Your task to perform on an android device: Open Yahoo.com Image 0: 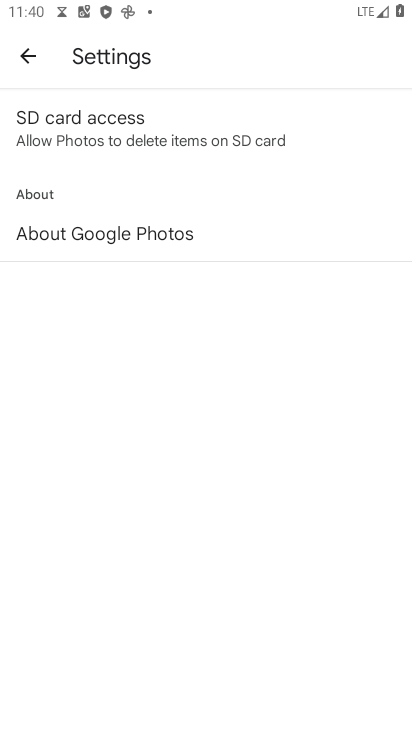
Step 0: press back button
Your task to perform on an android device: Open Yahoo.com Image 1: 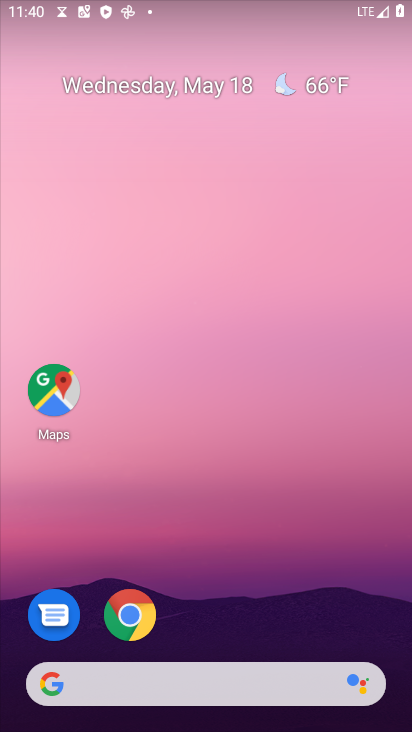
Step 1: drag from (250, 572) to (231, 29)
Your task to perform on an android device: Open Yahoo.com Image 2: 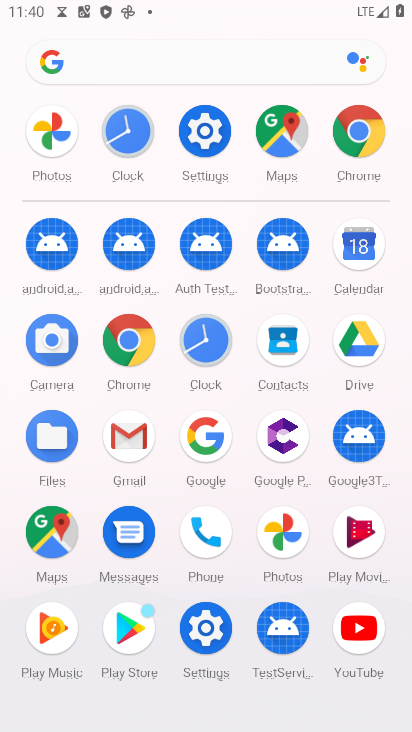
Step 2: click (127, 339)
Your task to perform on an android device: Open Yahoo.com Image 3: 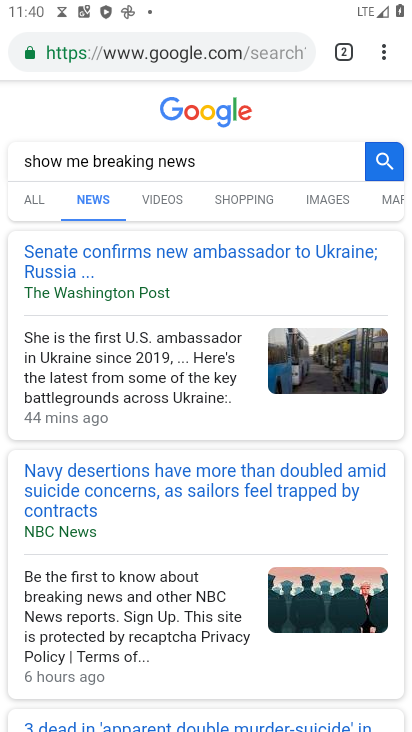
Step 3: click (163, 61)
Your task to perform on an android device: Open Yahoo.com Image 4: 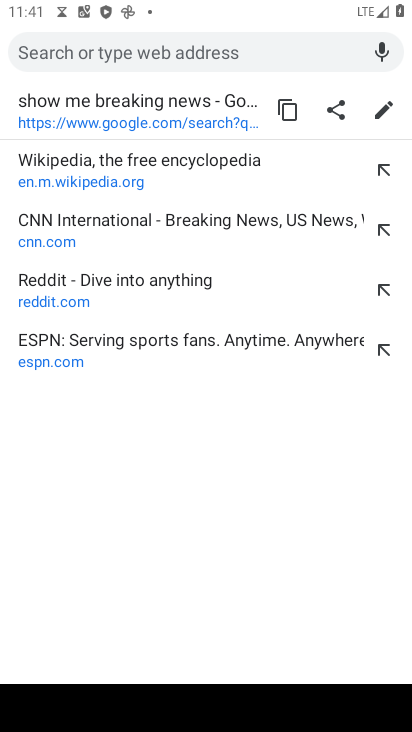
Step 4: type "Yahoo.com"
Your task to perform on an android device: Open Yahoo.com Image 5: 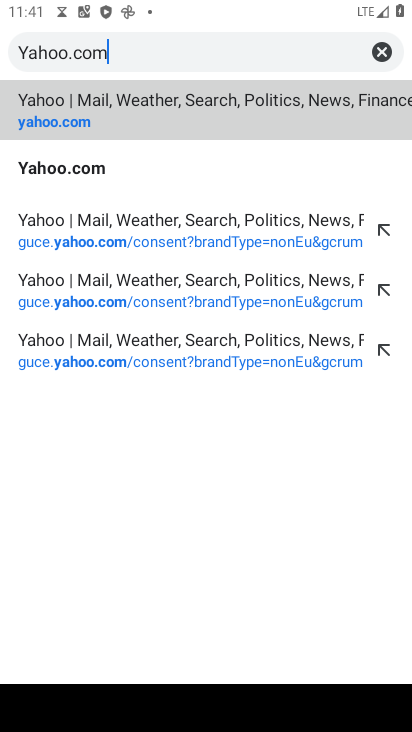
Step 5: type ""
Your task to perform on an android device: Open Yahoo.com Image 6: 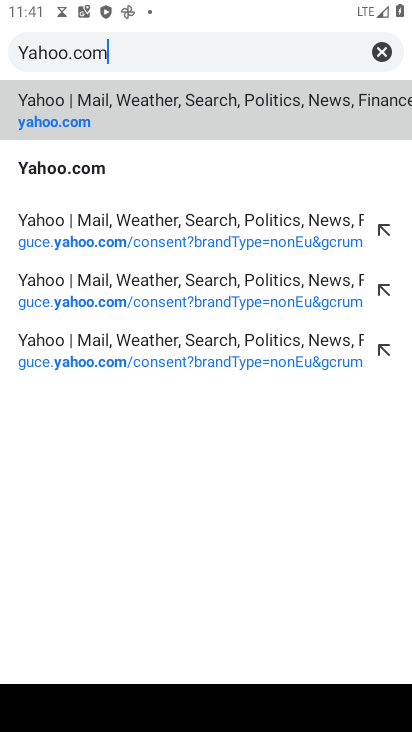
Step 6: click (153, 120)
Your task to perform on an android device: Open Yahoo.com Image 7: 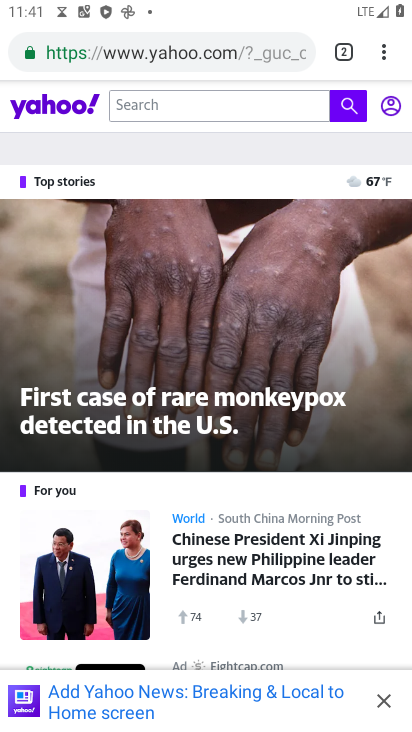
Step 7: task complete